Your task to perform on an android device: Search for "dell alienware" on bestbuy, select the first entry, and add it to the cart. Image 0: 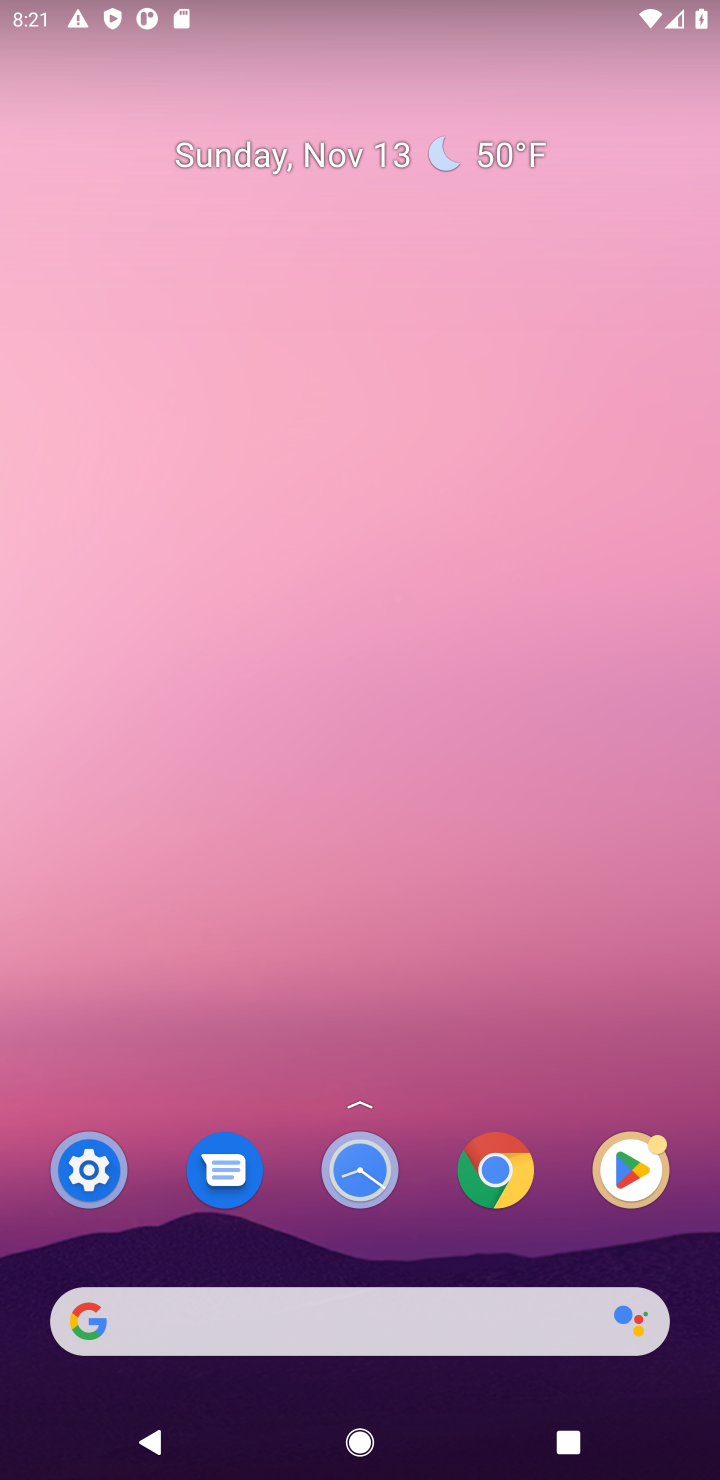
Step 0: click (243, 1336)
Your task to perform on an android device: Search for "dell alienware" on bestbuy, select the first entry, and add it to the cart. Image 1: 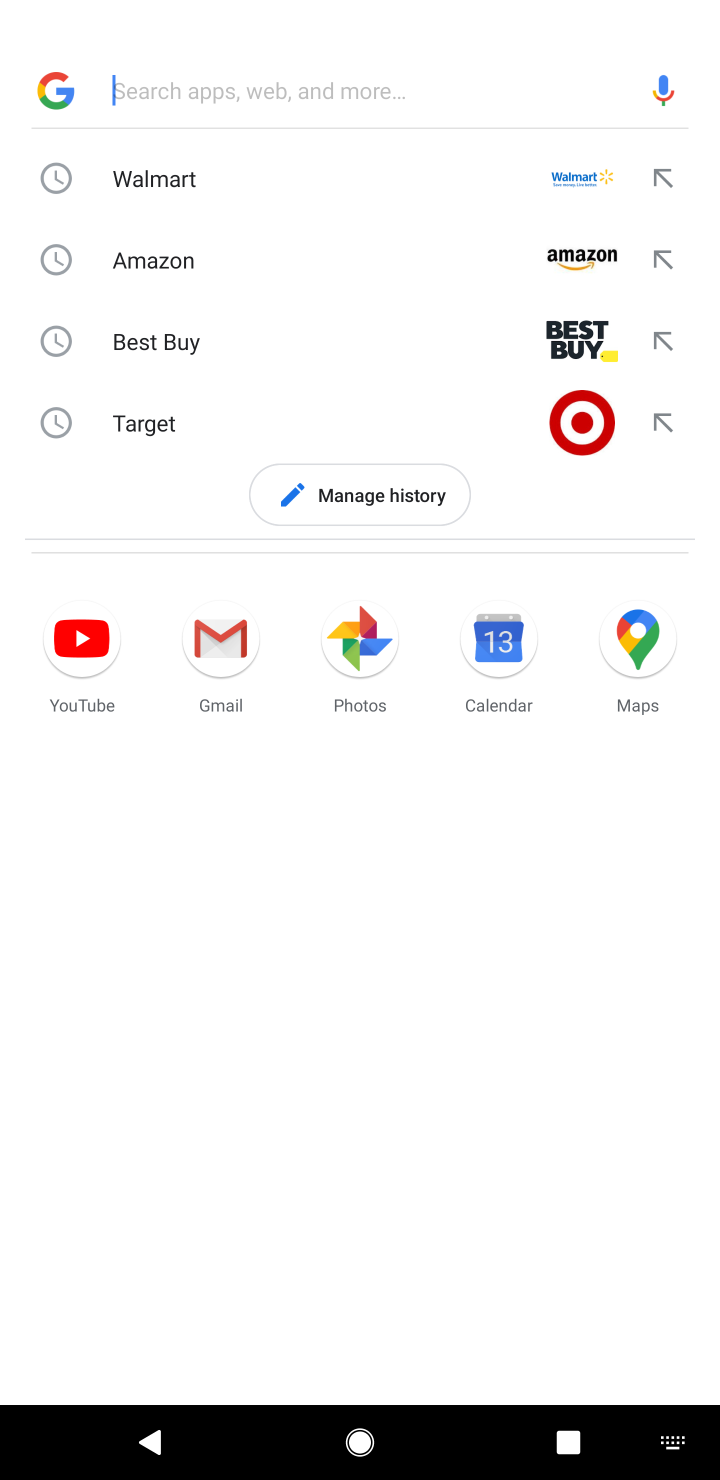
Step 1: click (606, 336)
Your task to perform on an android device: Search for "dell alienware" on bestbuy, select the first entry, and add it to the cart. Image 2: 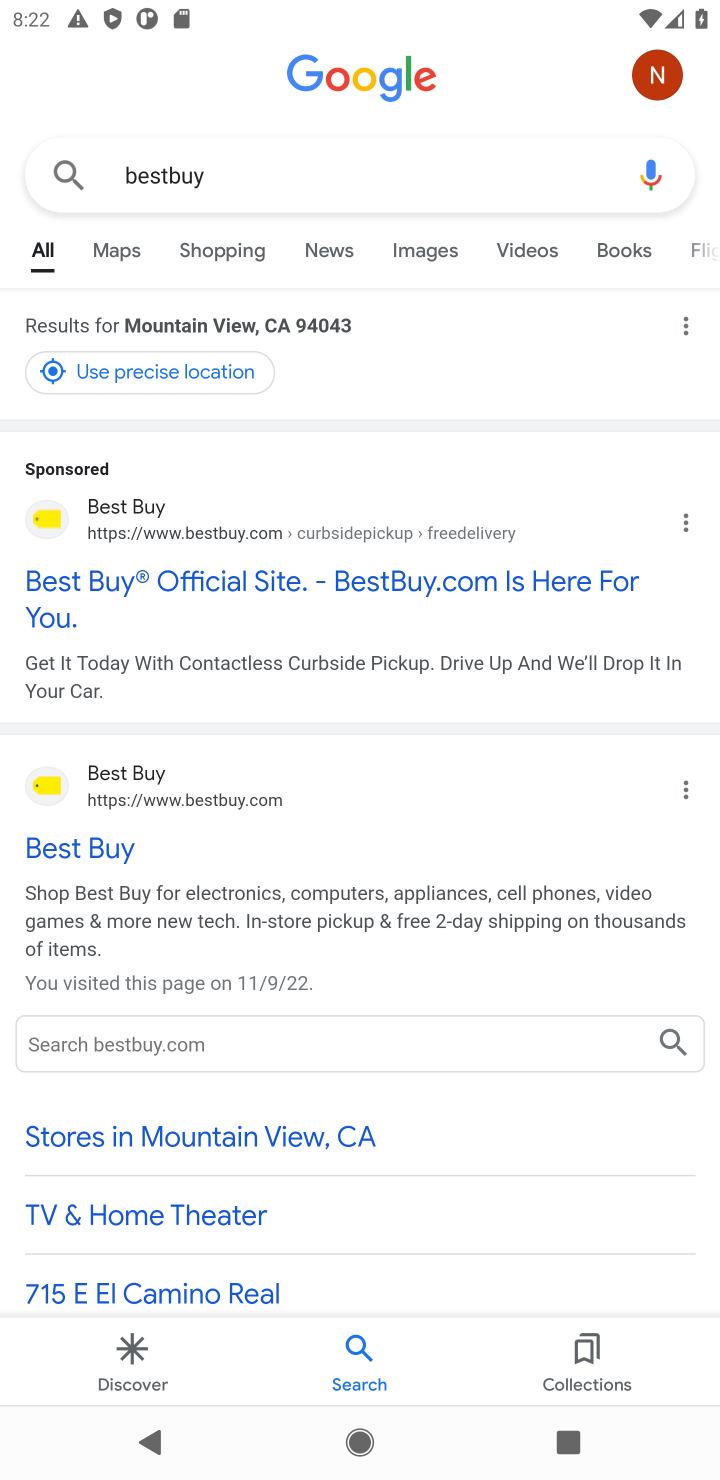
Step 2: click (87, 606)
Your task to perform on an android device: Search for "dell alienware" on bestbuy, select the first entry, and add it to the cart. Image 3: 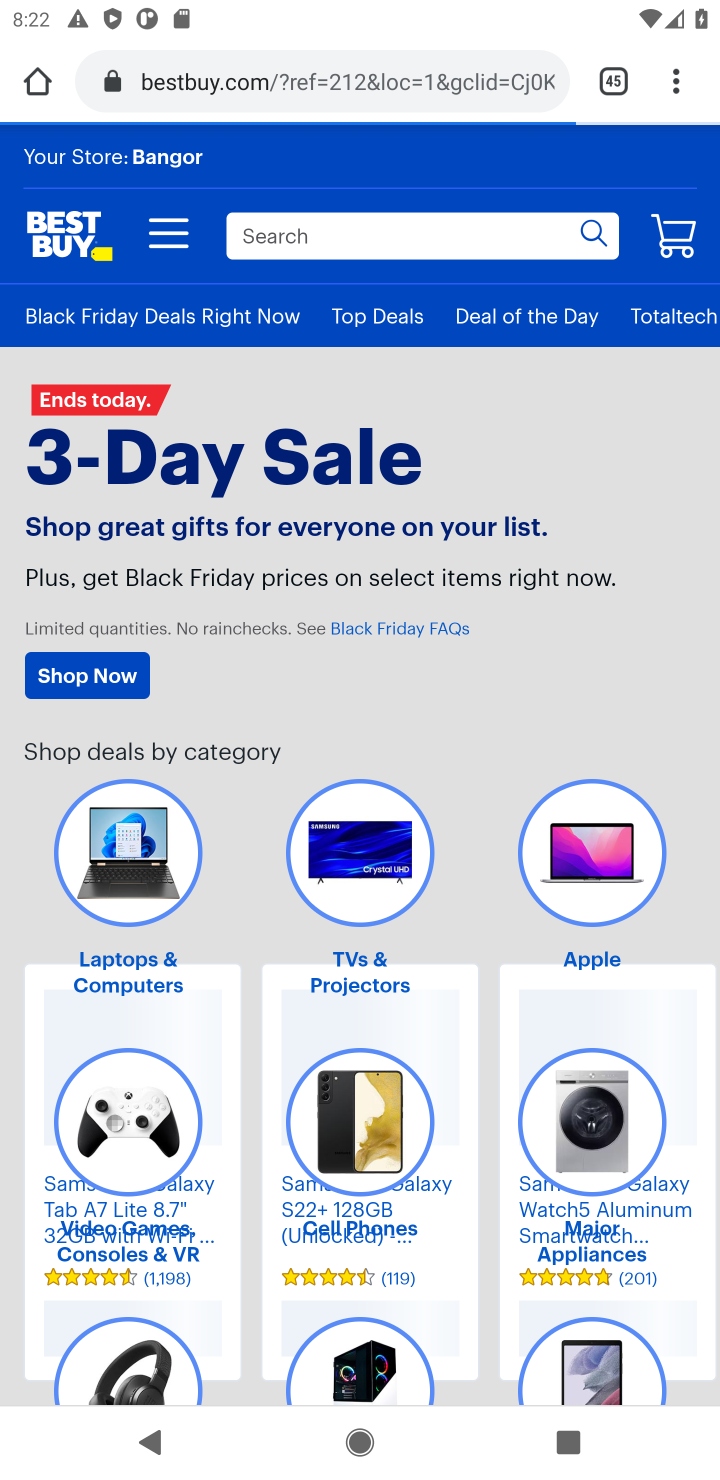
Step 3: task complete